Your task to perform on an android device: turn smart compose on in the gmail app Image 0: 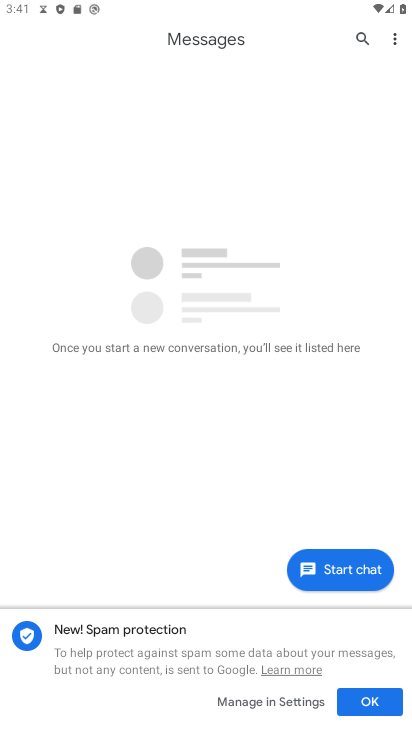
Step 0: press home button
Your task to perform on an android device: turn smart compose on in the gmail app Image 1: 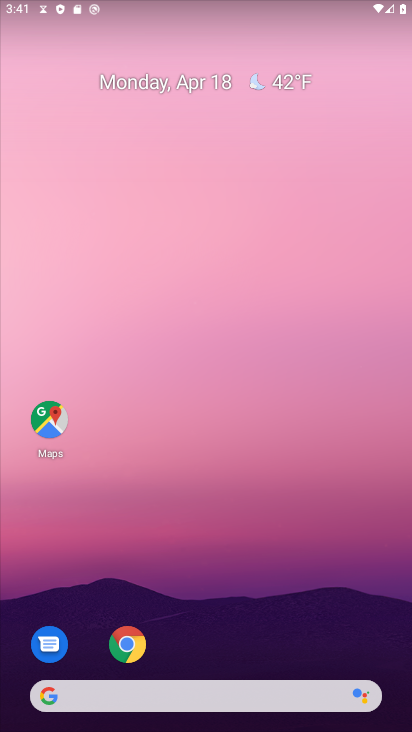
Step 1: drag from (272, 597) to (259, 176)
Your task to perform on an android device: turn smart compose on in the gmail app Image 2: 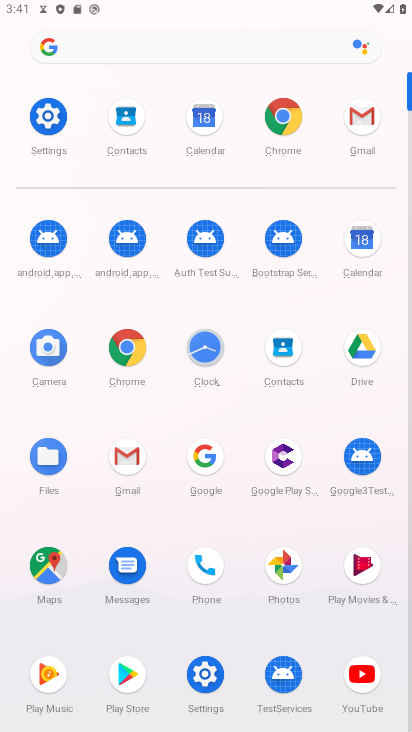
Step 2: click (377, 116)
Your task to perform on an android device: turn smart compose on in the gmail app Image 3: 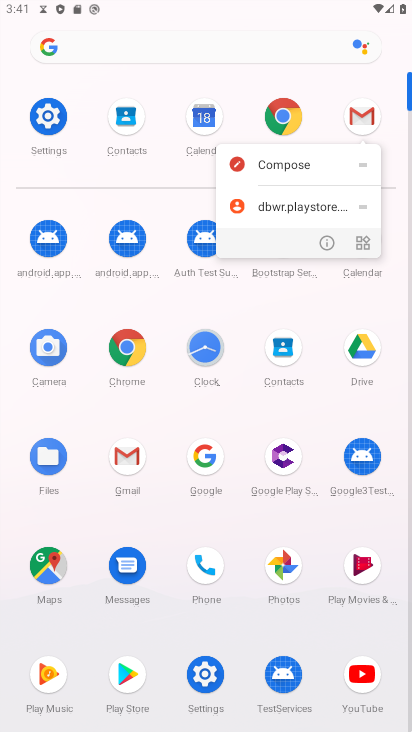
Step 3: click (361, 115)
Your task to perform on an android device: turn smart compose on in the gmail app Image 4: 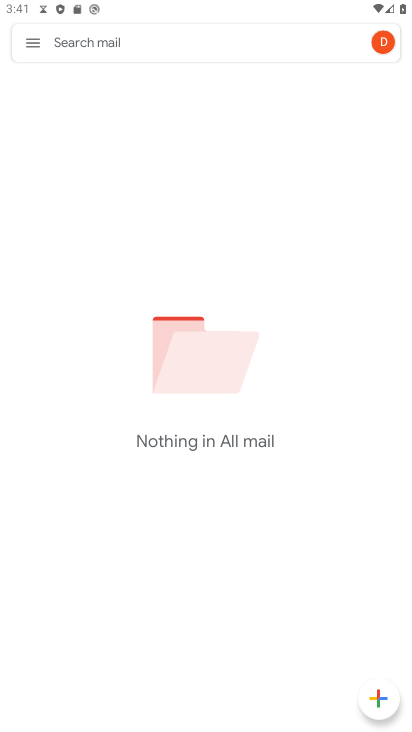
Step 4: click (34, 35)
Your task to perform on an android device: turn smart compose on in the gmail app Image 5: 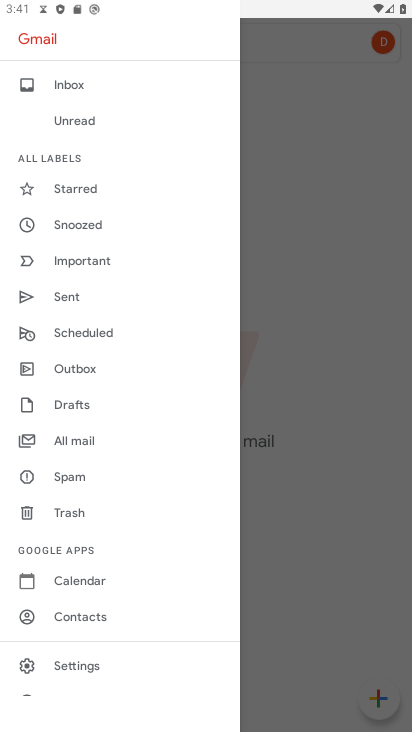
Step 5: click (109, 669)
Your task to perform on an android device: turn smart compose on in the gmail app Image 6: 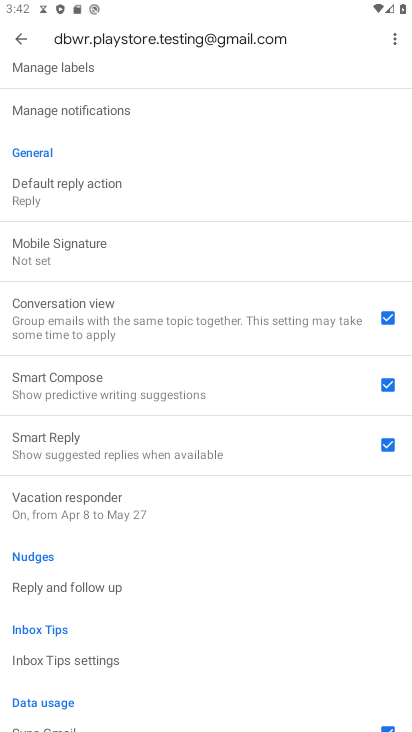
Step 6: task complete